Your task to perform on an android device: Play the last video I watched on Youtube Image 0: 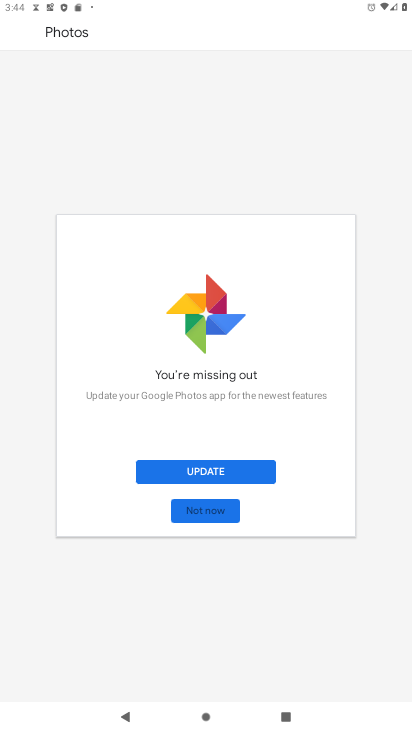
Step 0: press home button
Your task to perform on an android device: Play the last video I watched on Youtube Image 1: 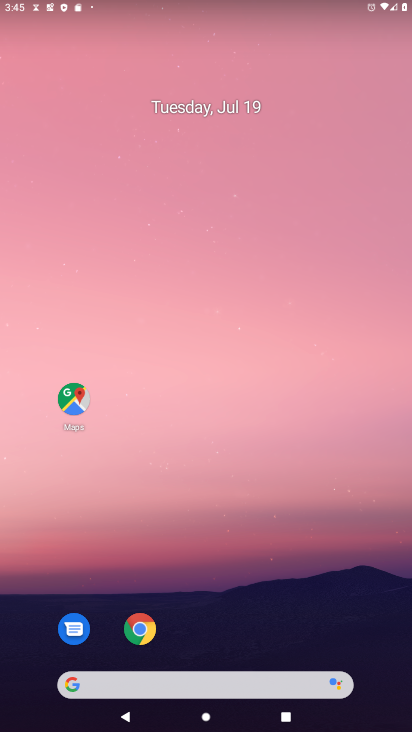
Step 1: drag from (192, 601) to (192, 182)
Your task to perform on an android device: Play the last video I watched on Youtube Image 2: 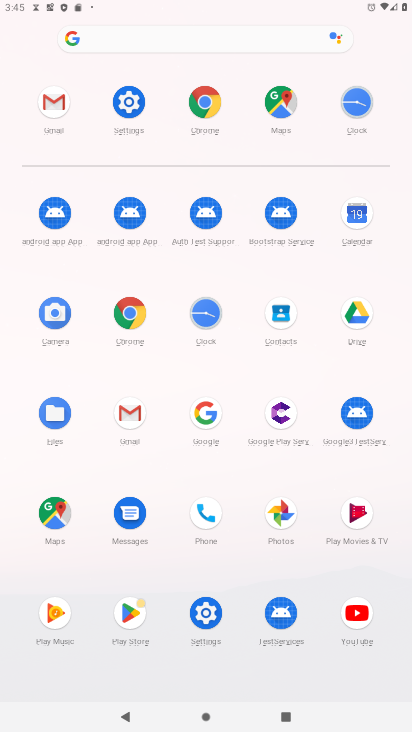
Step 2: click (348, 617)
Your task to perform on an android device: Play the last video I watched on Youtube Image 3: 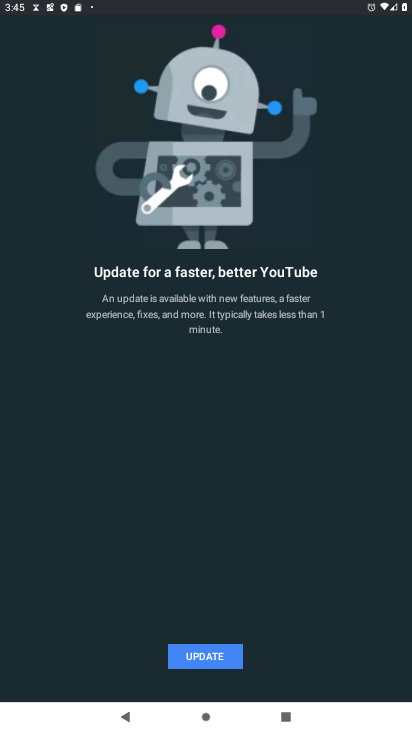
Step 3: click (214, 658)
Your task to perform on an android device: Play the last video I watched on Youtube Image 4: 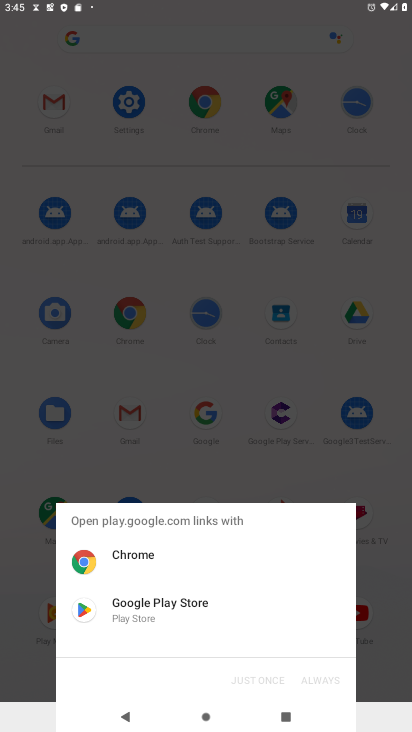
Step 4: click (122, 614)
Your task to perform on an android device: Play the last video I watched on Youtube Image 5: 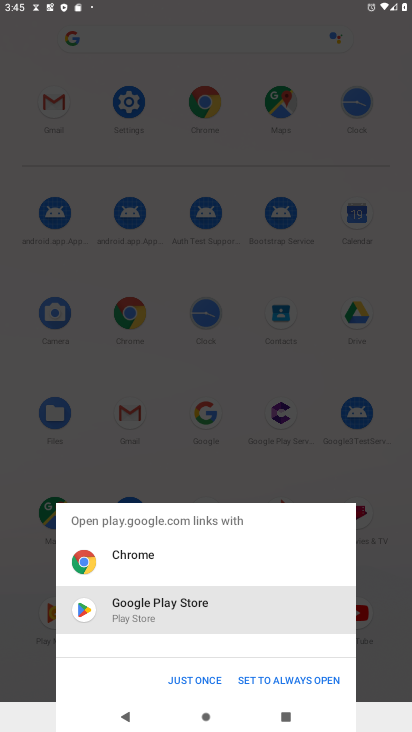
Step 5: click (195, 680)
Your task to perform on an android device: Play the last video I watched on Youtube Image 6: 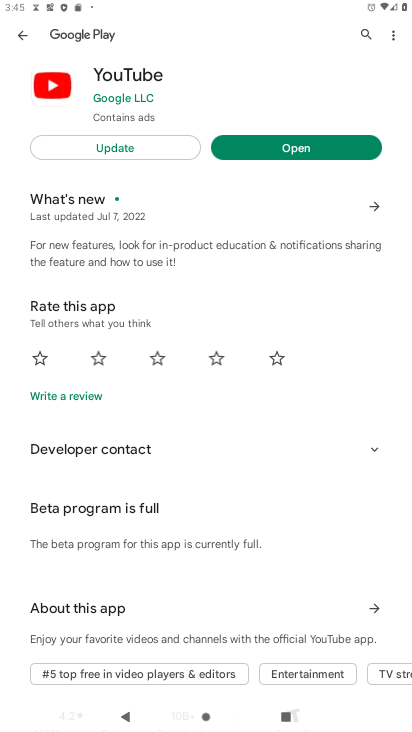
Step 6: click (113, 147)
Your task to perform on an android device: Play the last video I watched on Youtube Image 7: 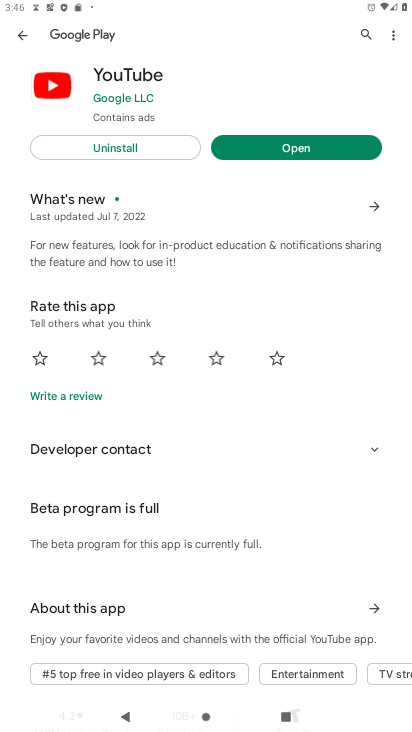
Step 7: click (249, 145)
Your task to perform on an android device: Play the last video I watched on Youtube Image 8: 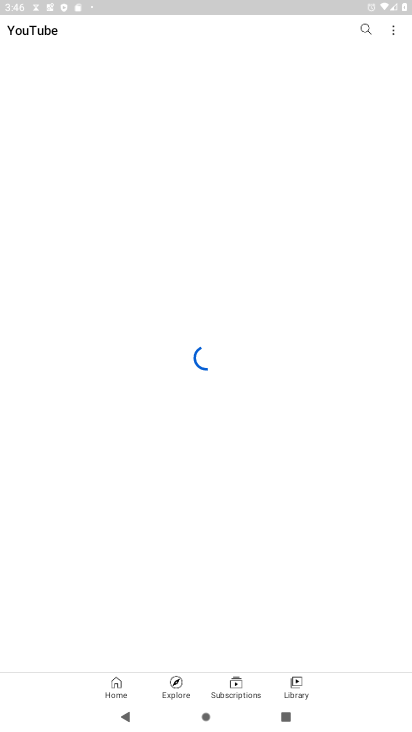
Step 8: click (291, 684)
Your task to perform on an android device: Play the last video I watched on Youtube Image 9: 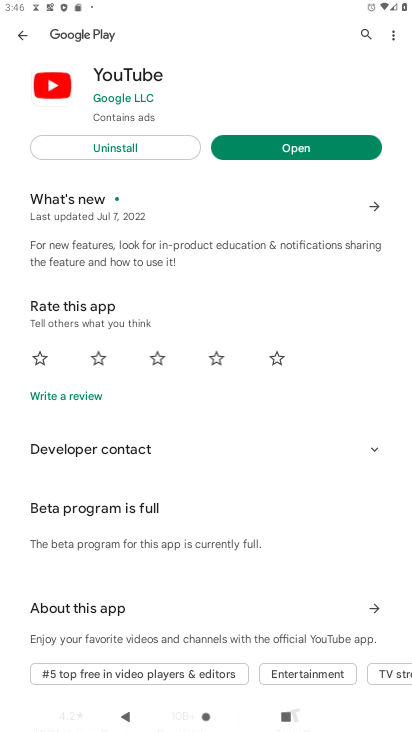
Step 9: click (245, 152)
Your task to perform on an android device: Play the last video I watched on Youtube Image 10: 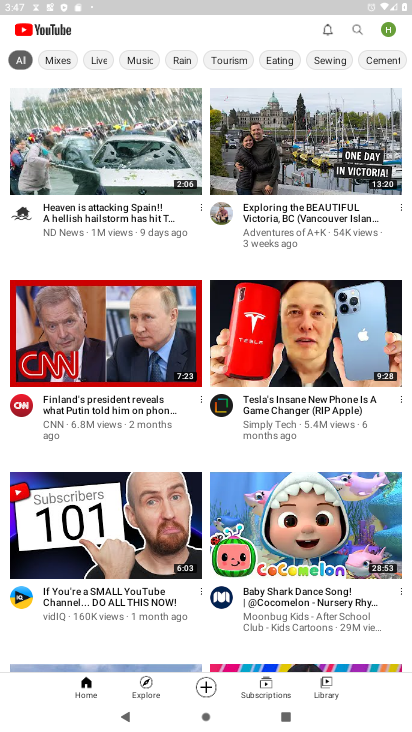
Step 10: click (327, 688)
Your task to perform on an android device: Play the last video I watched on Youtube Image 11: 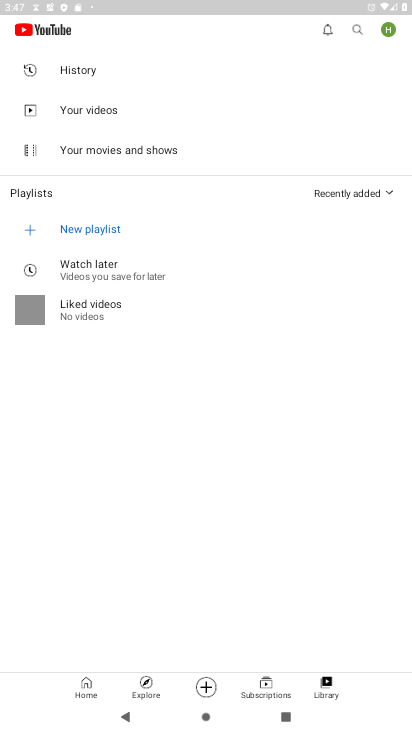
Step 11: click (73, 61)
Your task to perform on an android device: Play the last video I watched on Youtube Image 12: 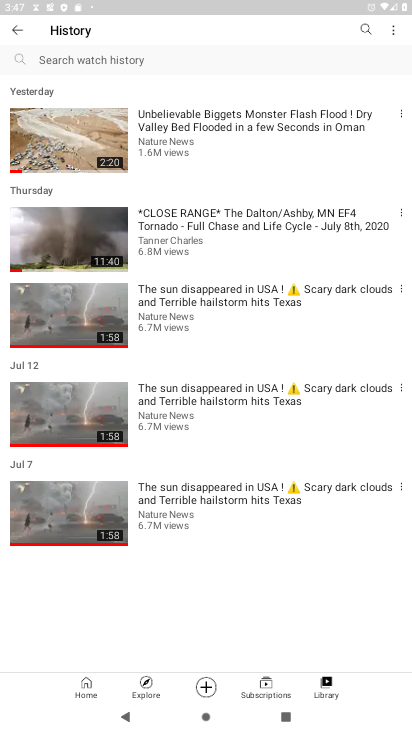
Step 12: click (167, 122)
Your task to perform on an android device: Play the last video I watched on Youtube Image 13: 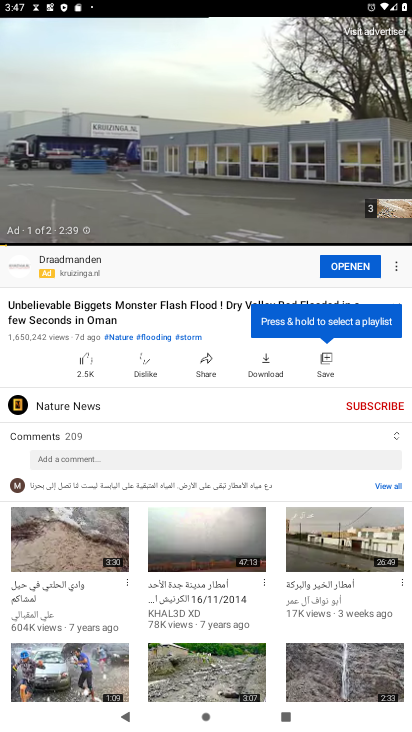
Step 13: task complete